Your task to perform on an android device: Open the Play Movies app and select the watchlist tab. Image 0: 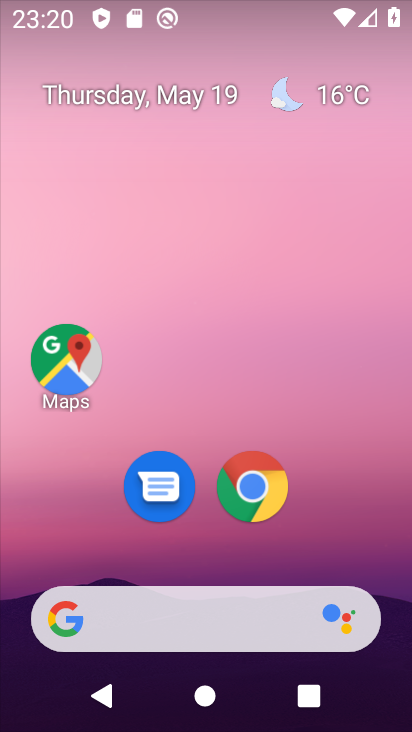
Step 0: drag from (322, 523) to (382, 41)
Your task to perform on an android device: Open the Play Movies app and select the watchlist tab. Image 1: 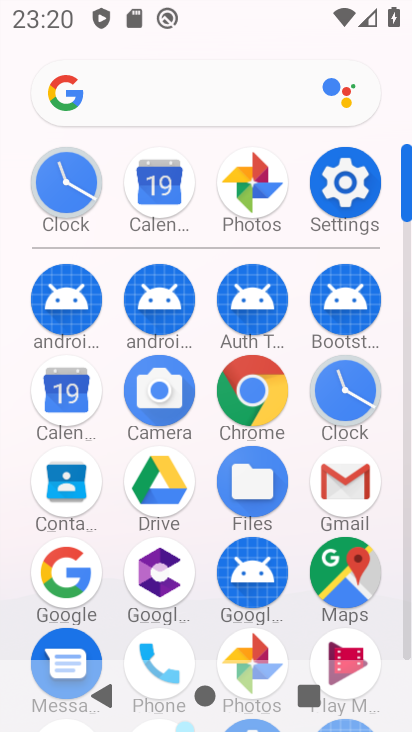
Step 1: click (345, 649)
Your task to perform on an android device: Open the Play Movies app and select the watchlist tab. Image 2: 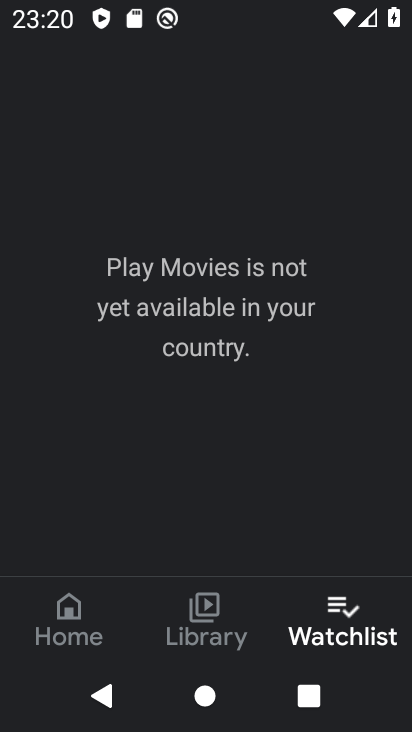
Step 2: task complete